Your task to perform on an android device: Show me popular videos on Youtube Image 0: 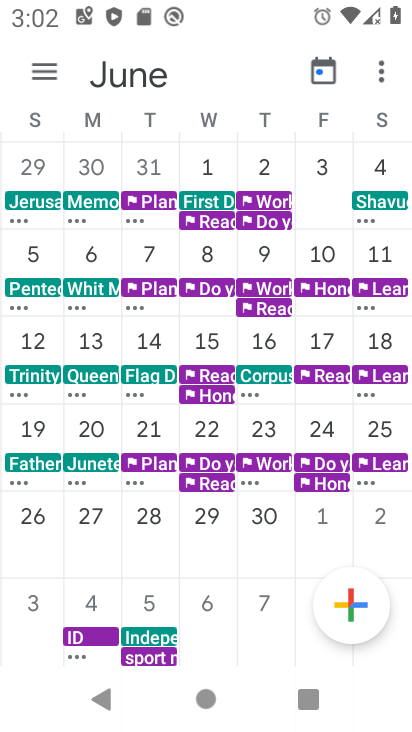
Step 0: press home button
Your task to perform on an android device: Show me popular videos on Youtube Image 1: 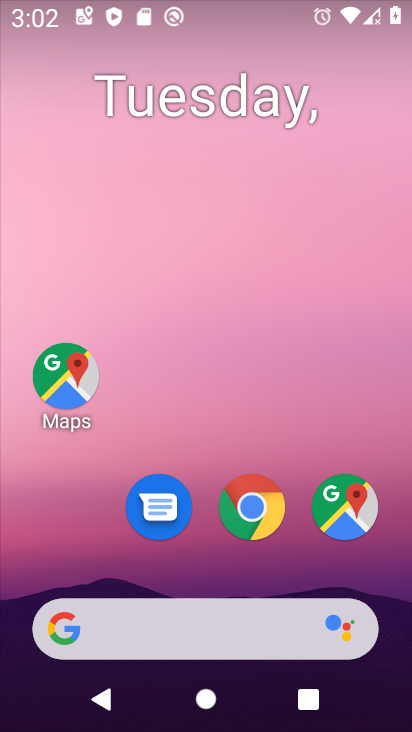
Step 1: drag from (282, 542) to (279, 183)
Your task to perform on an android device: Show me popular videos on Youtube Image 2: 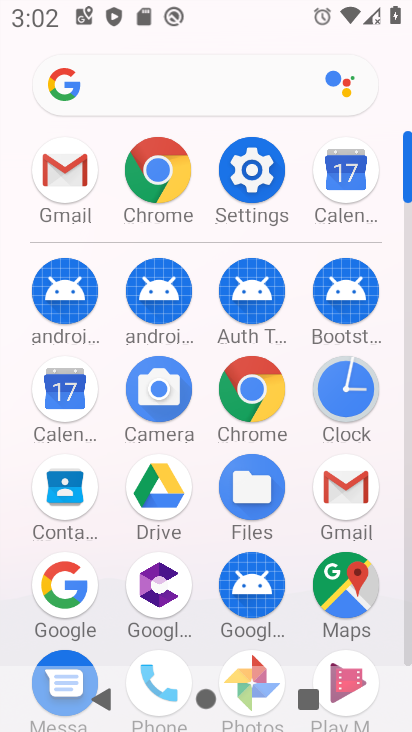
Step 2: drag from (302, 587) to (306, 336)
Your task to perform on an android device: Show me popular videos on Youtube Image 3: 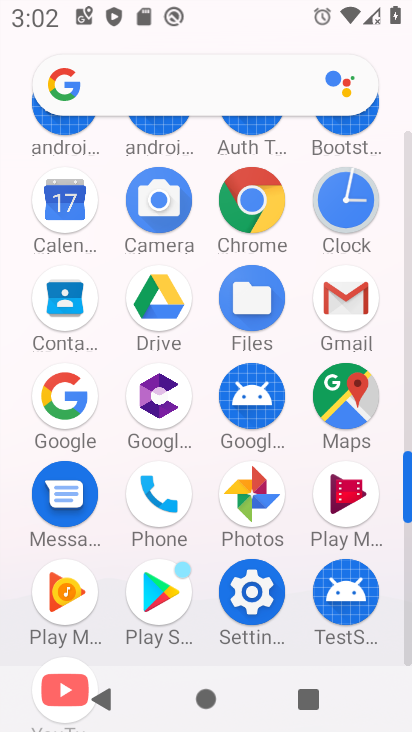
Step 3: drag from (216, 621) to (264, 384)
Your task to perform on an android device: Show me popular videos on Youtube Image 4: 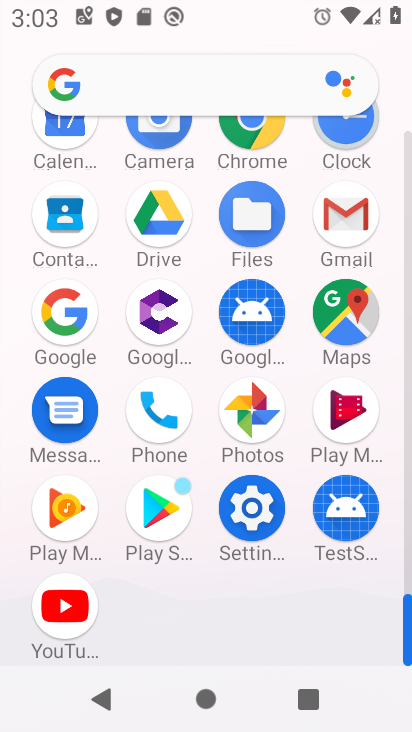
Step 4: click (62, 608)
Your task to perform on an android device: Show me popular videos on Youtube Image 5: 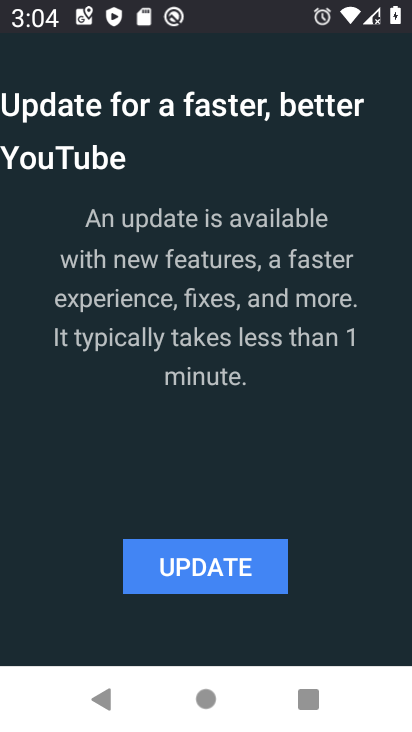
Step 5: task complete